Your task to perform on an android device: Open internet settings Image 0: 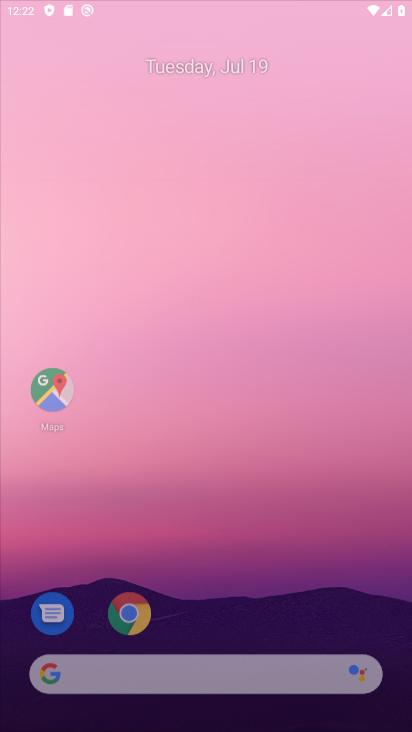
Step 0: press home button
Your task to perform on an android device: Open internet settings Image 1: 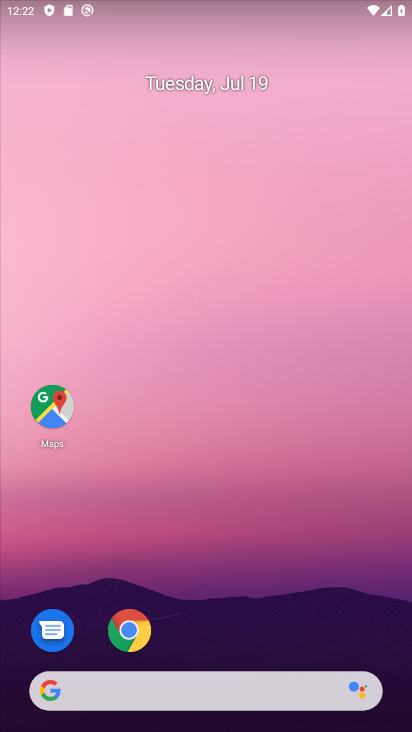
Step 1: drag from (209, 583) to (291, 199)
Your task to perform on an android device: Open internet settings Image 2: 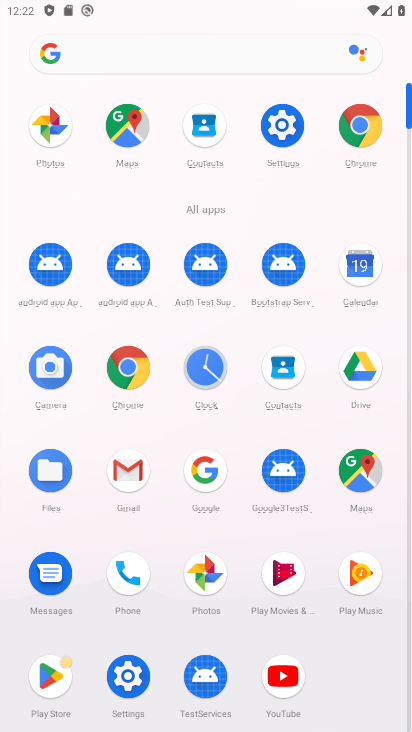
Step 2: click (278, 132)
Your task to perform on an android device: Open internet settings Image 3: 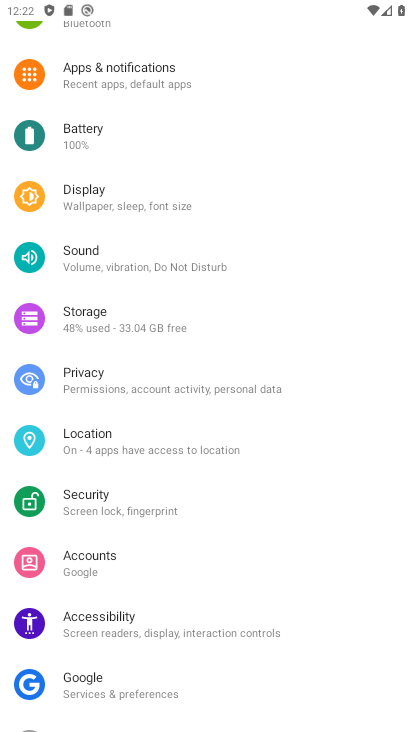
Step 3: drag from (260, 105) to (202, 601)
Your task to perform on an android device: Open internet settings Image 4: 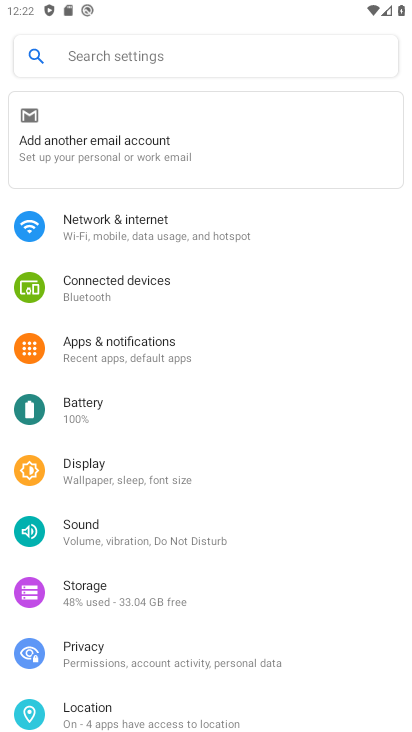
Step 4: click (149, 225)
Your task to perform on an android device: Open internet settings Image 5: 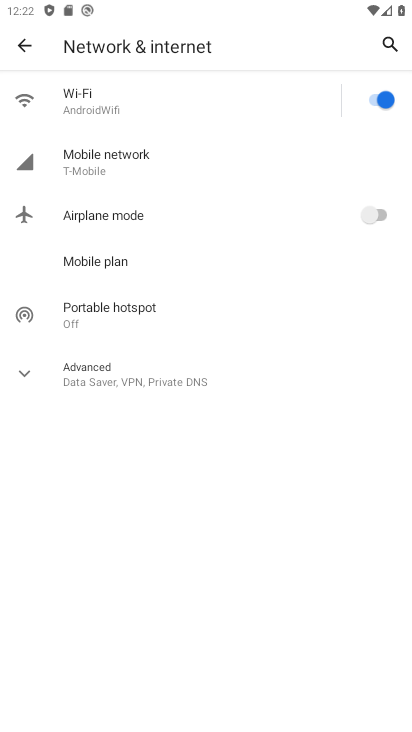
Step 5: task complete